Your task to perform on an android device: turn off location history Image 0: 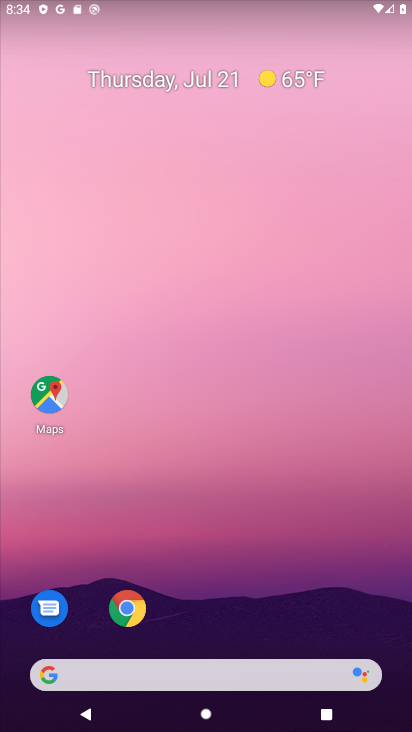
Step 0: drag from (231, 607) to (204, 330)
Your task to perform on an android device: turn off location history Image 1: 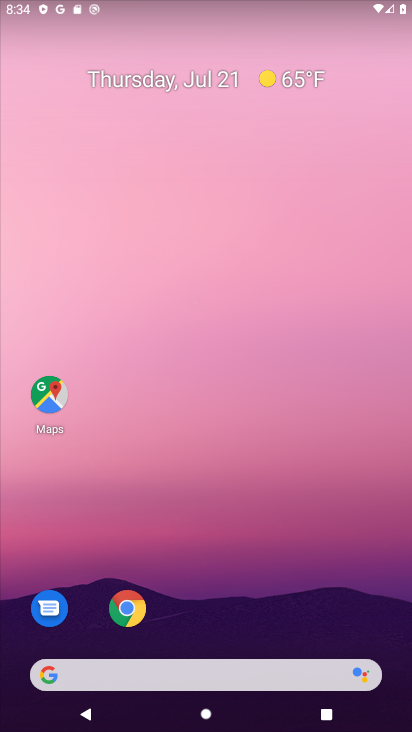
Step 1: drag from (242, 451) to (232, 219)
Your task to perform on an android device: turn off location history Image 2: 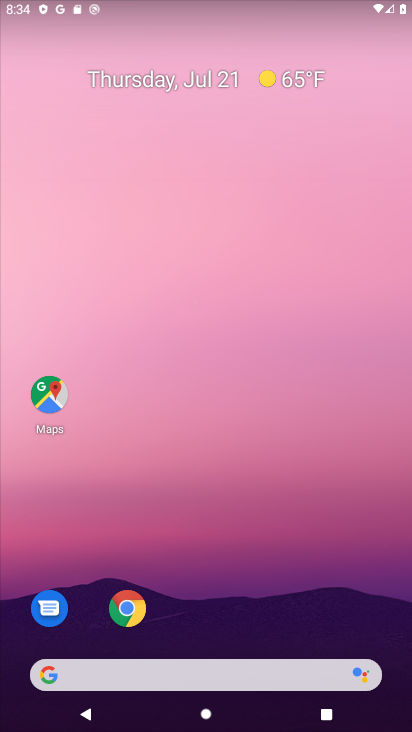
Step 2: drag from (253, 314) to (243, 134)
Your task to perform on an android device: turn off location history Image 3: 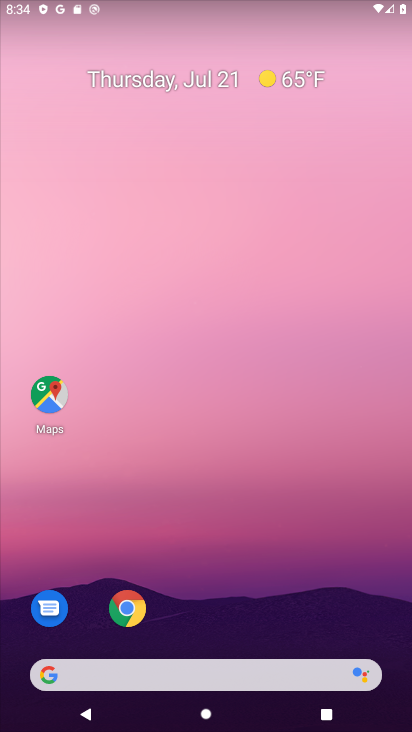
Step 3: drag from (270, 550) to (260, 102)
Your task to perform on an android device: turn off location history Image 4: 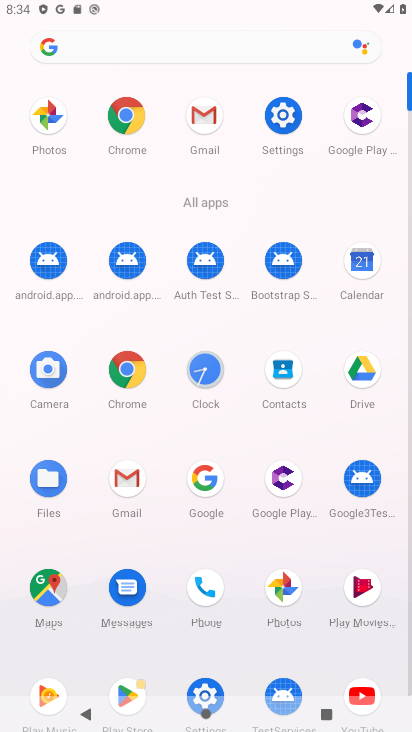
Step 4: click (286, 114)
Your task to perform on an android device: turn off location history Image 5: 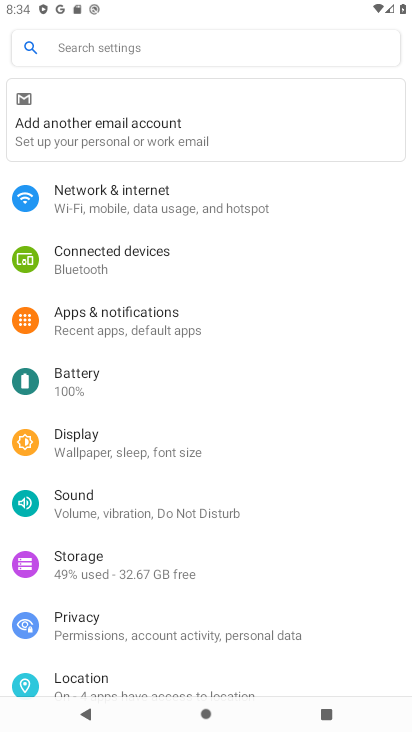
Step 5: click (83, 673)
Your task to perform on an android device: turn off location history Image 6: 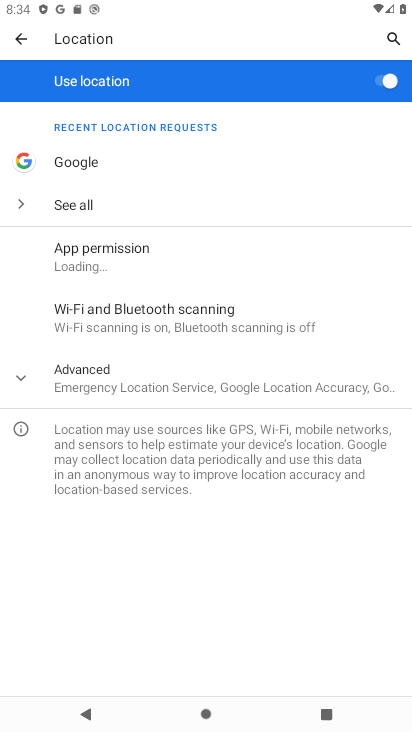
Step 6: task complete